Your task to perform on an android device: Go to Wikipedia Image 0: 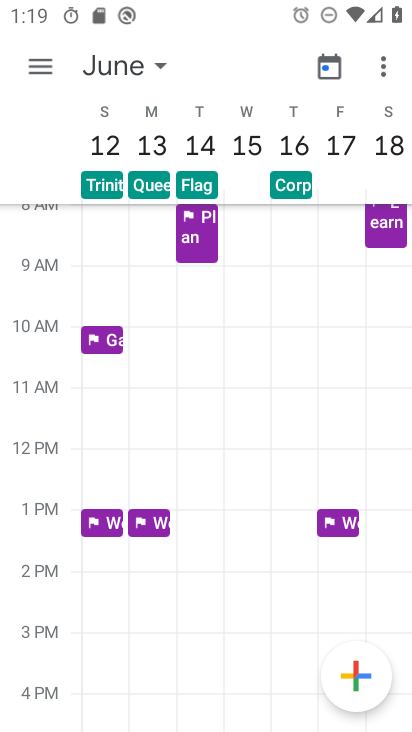
Step 0: press home button
Your task to perform on an android device: Go to Wikipedia Image 1: 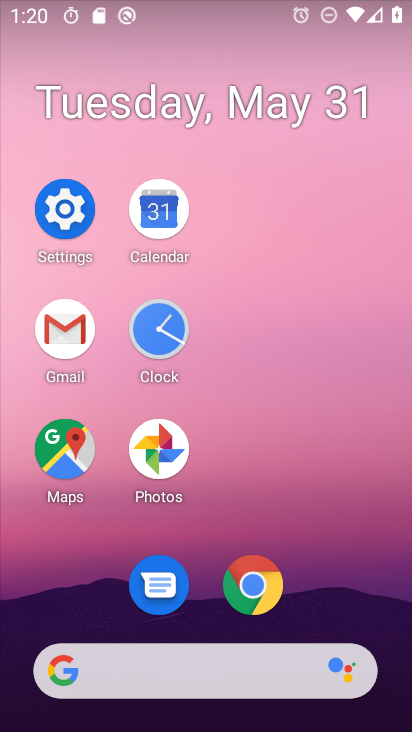
Step 1: press home button
Your task to perform on an android device: Go to Wikipedia Image 2: 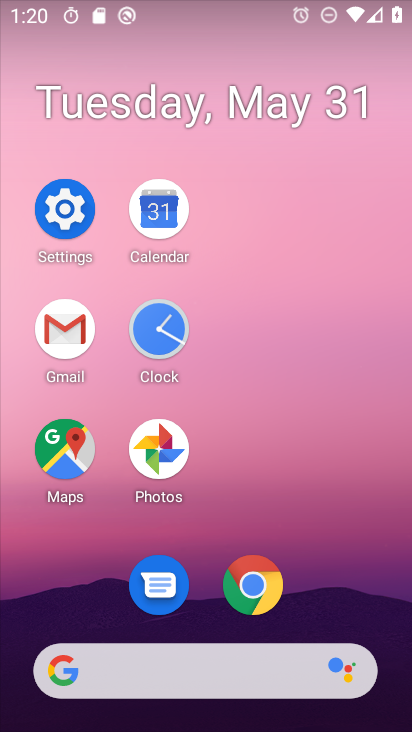
Step 2: click (271, 583)
Your task to perform on an android device: Go to Wikipedia Image 3: 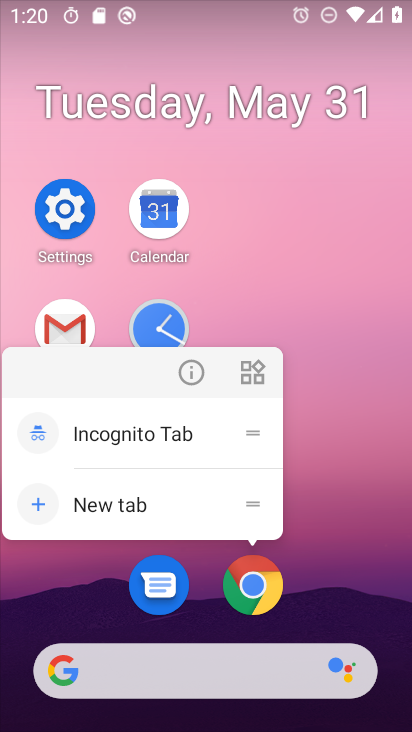
Step 3: click (271, 583)
Your task to perform on an android device: Go to Wikipedia Image 4: 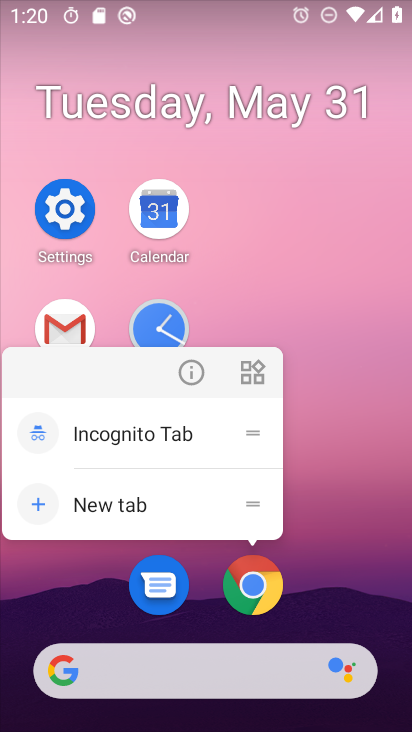
Step 4: click (271, 583)
Your task to perform on an android device: Go to Wikipedia Image 5: 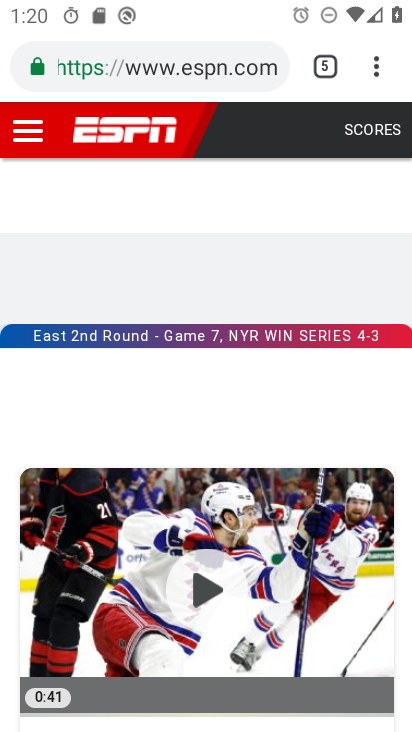
Step 5: click (335, 69)
Your task to perform on an android device: Go to Wikipedia Image 6: 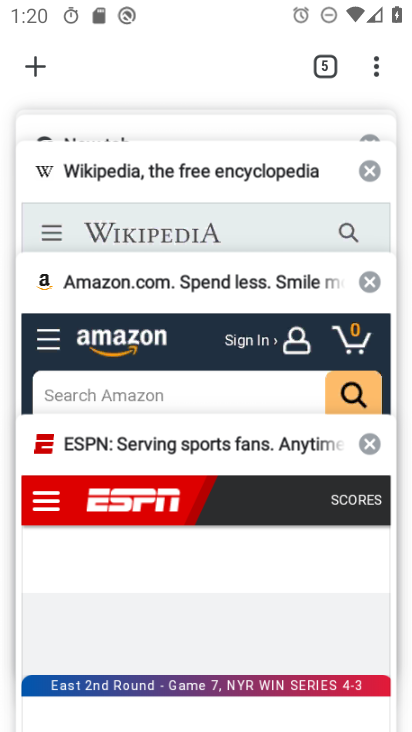
Step 6: click (161, 226)
Your task to perform on an android device: Go to Wikipedia Image 7: 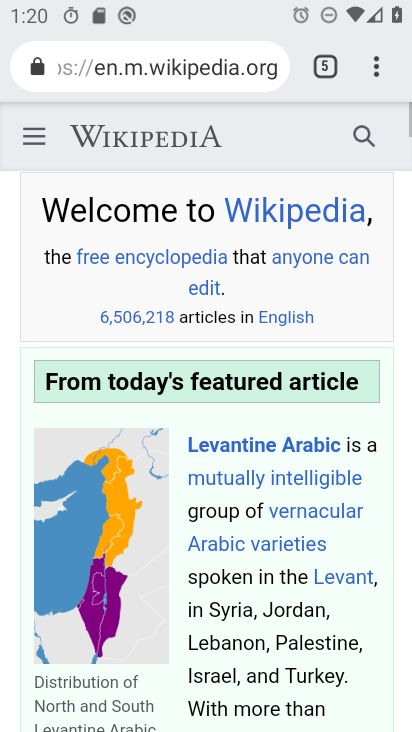
Step 7: task complete